Your task to perform on an android device: Go to wifi settings Image 0: 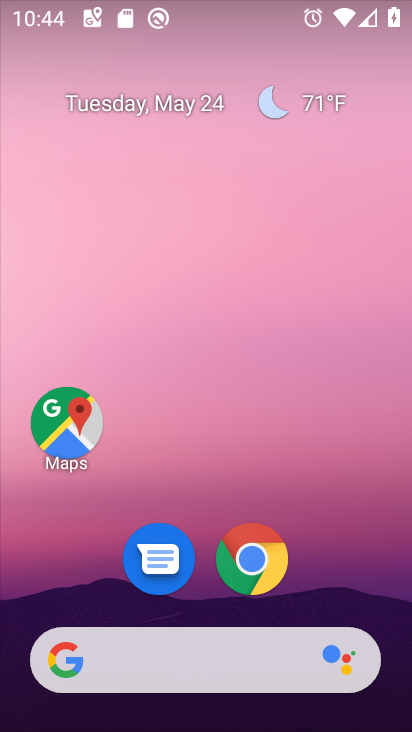
Step 0: drag from (396, 619) to (173, 28)
Your task to perform on an android device: Go to wifi settings Image 1: 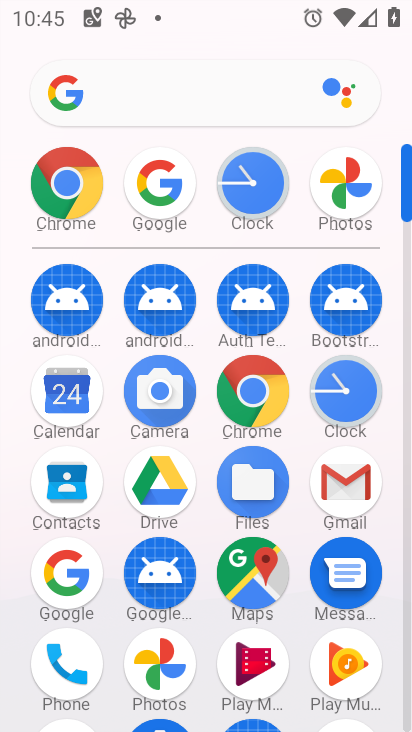
Step 1: drag from (206, 672) to (157, 143)
Your task to perform on an android device: Go to wifi settings Image 2: 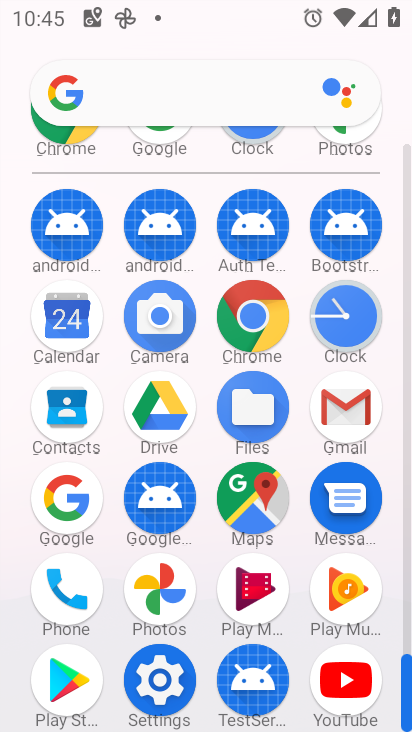
Step 2: click (158, 659)
Your task to perform on an android device: Go to wifi settings Image 3: 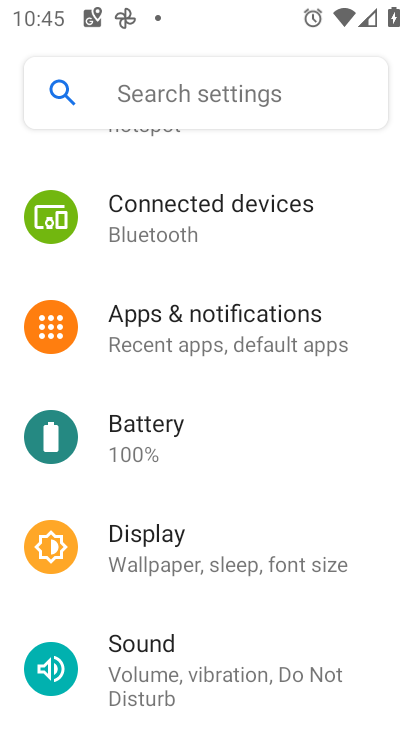
Step 3: click (141, 149)
Your task to perform on an android device: Go to wifi settings Image 4: 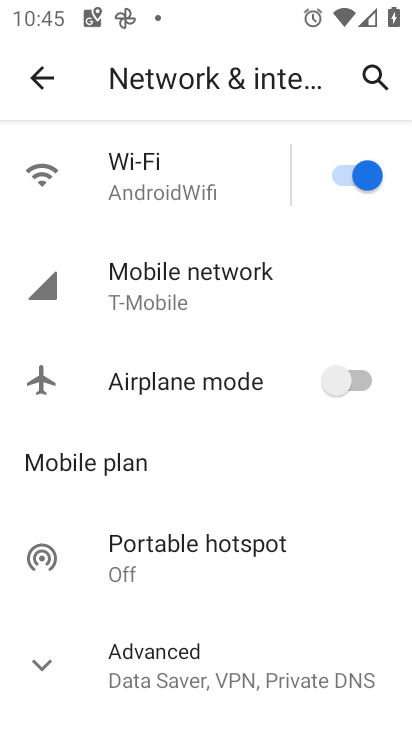
Step 4: click (156, 200)
Your task to perform on an android device: Go to wifi settings Image 5: 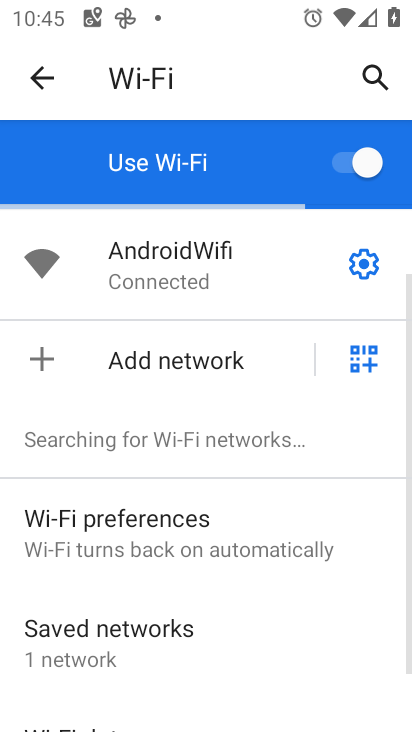
Step 5: task complete